Your task to perform on an android device: Go to Google maps Image 0: 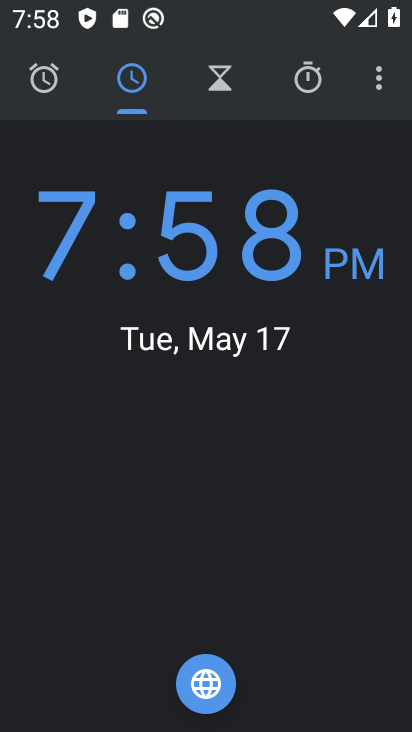
Step 0: press home button
Your task to perform on an android device: Go to Google maps Image 1: 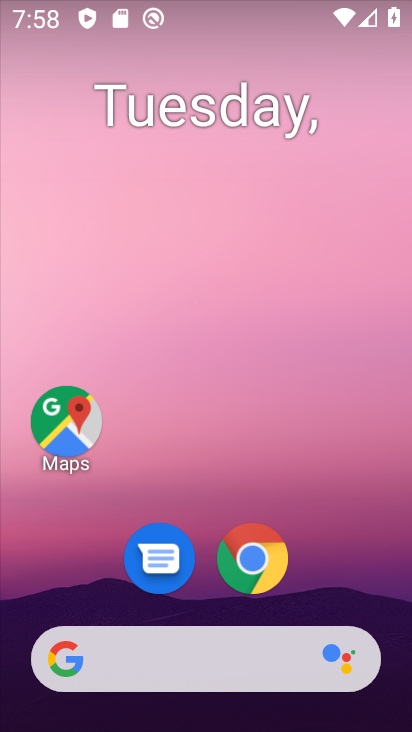
Step 1: click (65, 423)
Your task to perform on an android device: Go to Google maps Image 2: 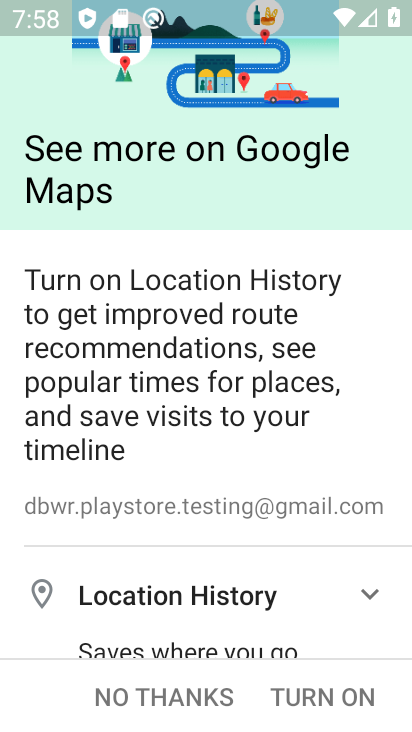
Step 2: click (325, 688)
Your task to perform on an android device: Go to Google maps Image 3: 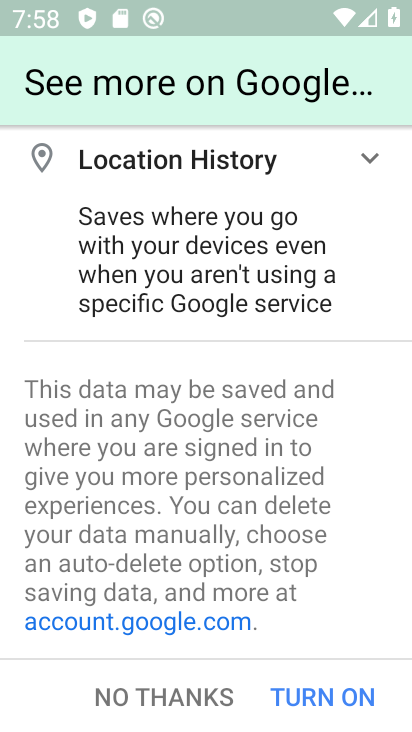
Step 3: click (340, 697)
Your task to perform on an android device: Go to Google maps Image 4: 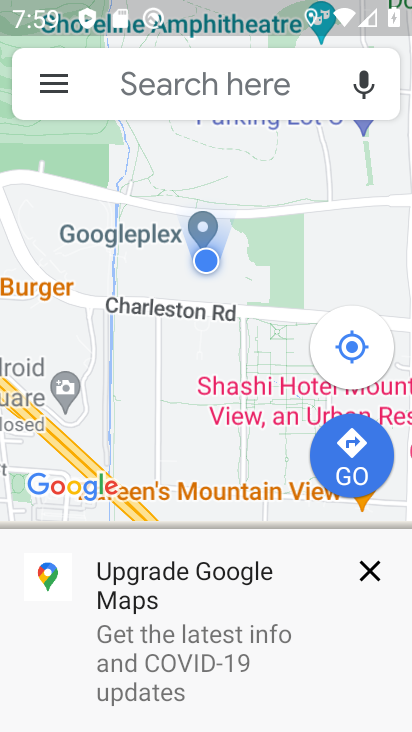
Step 4: task complete